Your task to perform on an android device: Open calendar and show me the third week of next month Image 0: 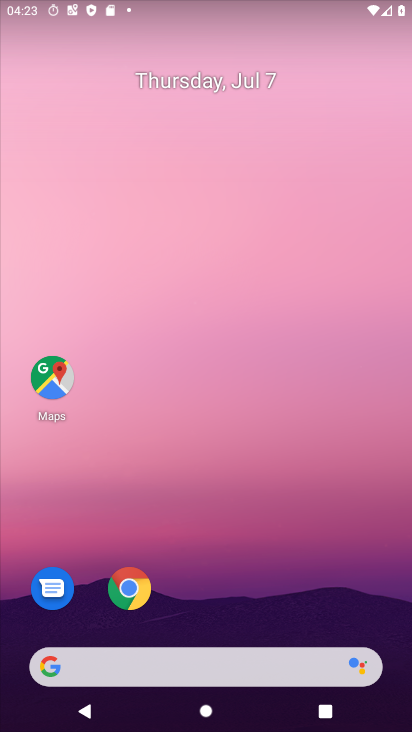
Step 0: press home button
Your task to perform on an android device: Open calendar and show me the third week of next month Image 1: 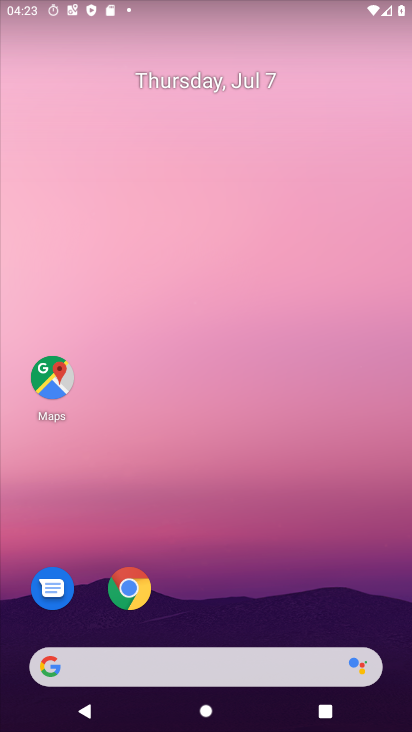
Step 1: drag from (244, 633) to (232, 227)
Your task to perform on an android device: Open calendar and show me the third week of next month Image 2: 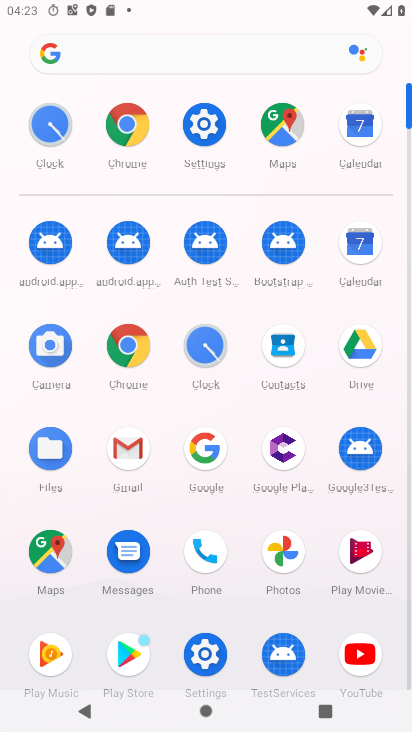
Step 2: click (368, 249)
Your task to perform on an android device: Open calendar and show me the third week of next month Image 3: 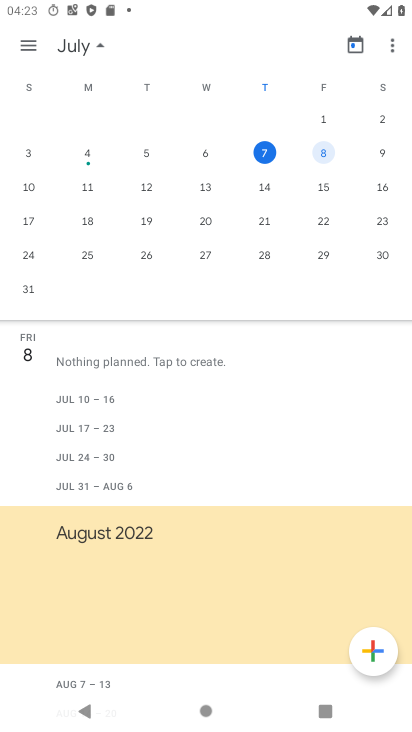
Step 3: drag from (377, 205) to (31, 252)
Your task to perform on an android device: Open calendar and show me the third week of next month Image 4: 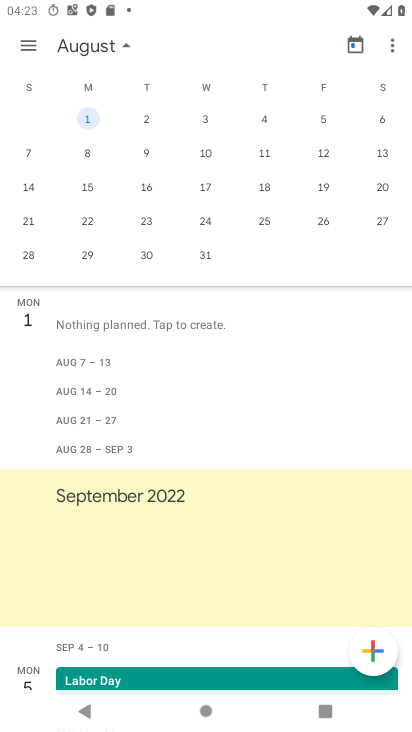
Step 4: click (83, 184)
Your task to perform on an android device: Open calendar and show me the third week of next month Image 5: 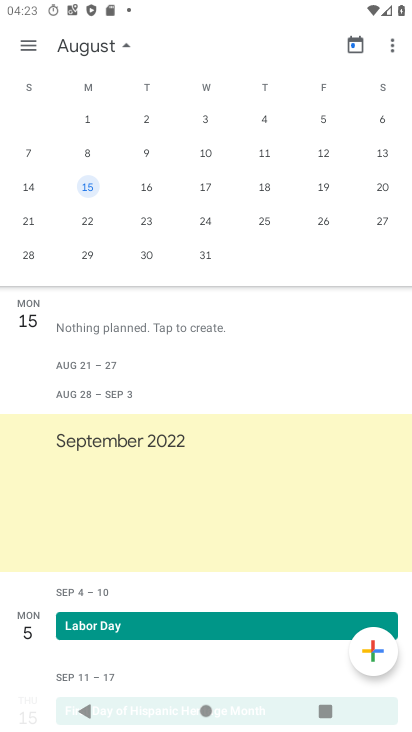
Step 5: click (157, 183)
Your task to perform on an android device: Open calendar and show me the third week of next month Image 6: 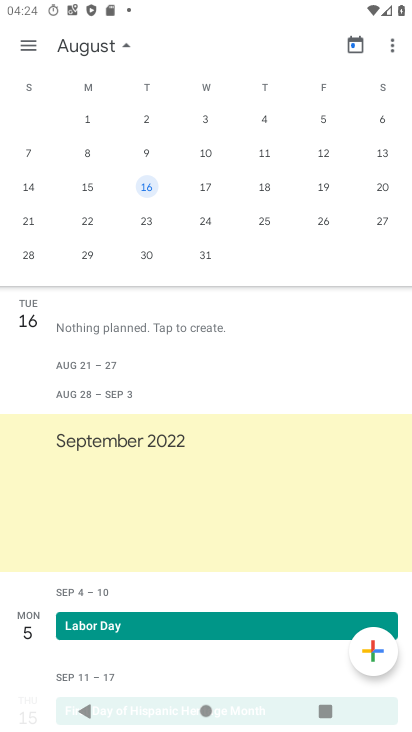
Step 6: click (203, 185)
Your task to perform on an android device: Open calendar and show me the third week of next month Image 7: 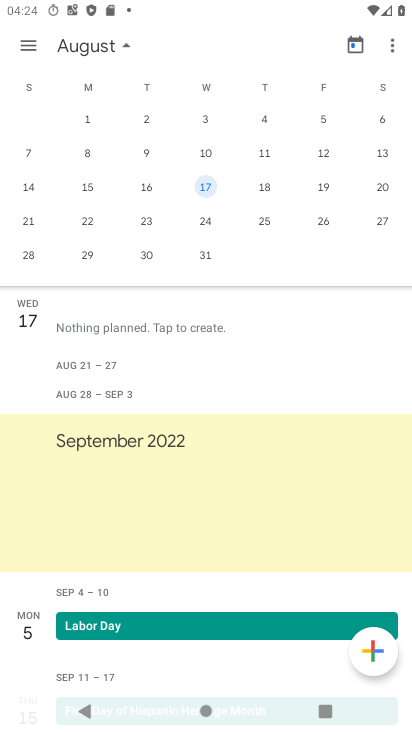
Step 7: click (264, 186)
Your task to perform on an android device: Open calendar and show me the third week of next month Image 8: 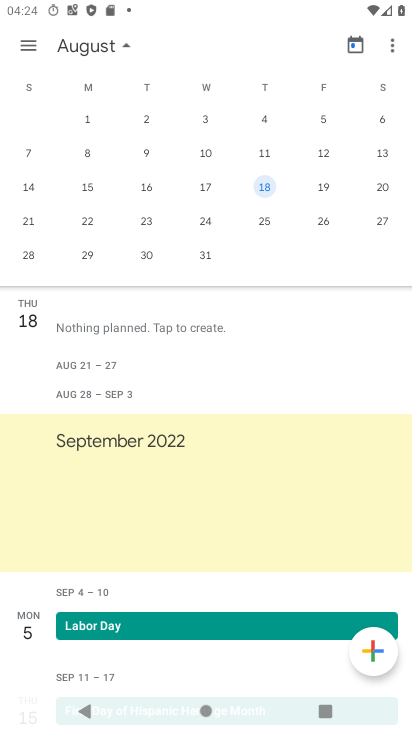
Step 8: click (327, 190)
Your task to perform on an android device: Open calendar and show me the third week of next month Image 9: 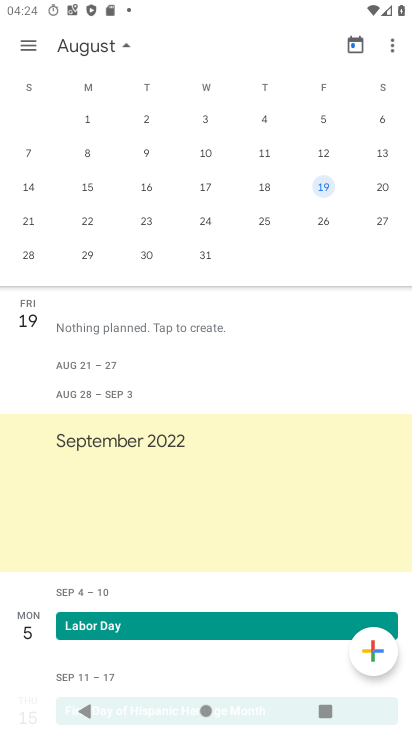
Step 9: click (385, 188)
Your task to perform on an android device: Open calendar and show me the third week of next month Image 10: 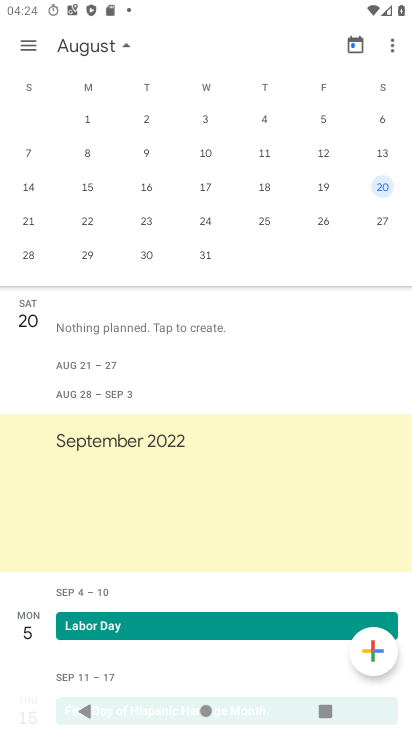
Step 10: click (30, 222)
Your task to perform on an android device: Open calendar and show me the third week of next month Image 11: 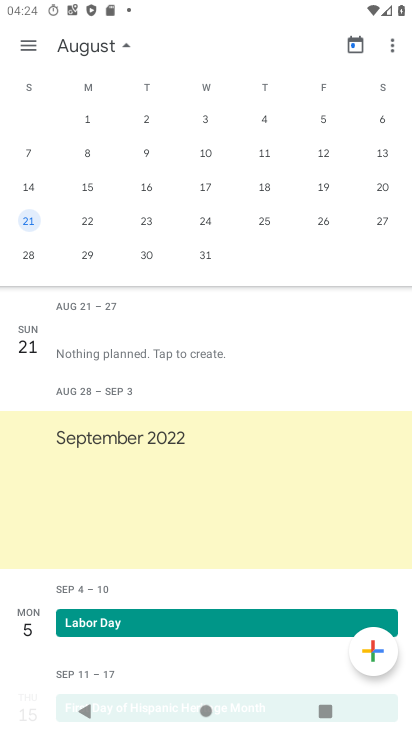
Step 11: task complete